Your task to perform on an android device: open a new tab in the chrome app Image 0: 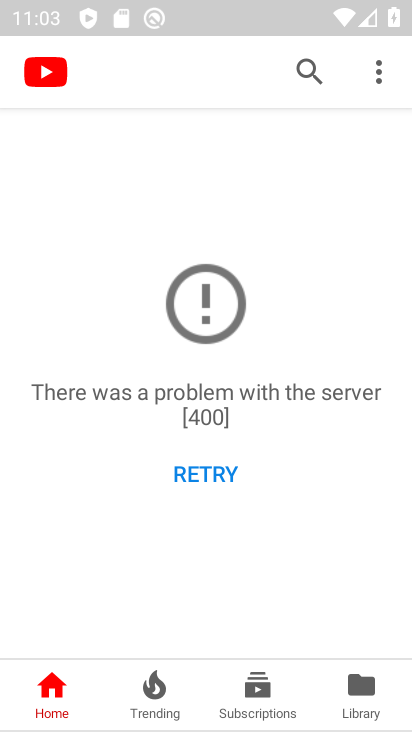
Step 0: press back button
Your task to perform on an android device: open a new tab in the chrome app Image 1: 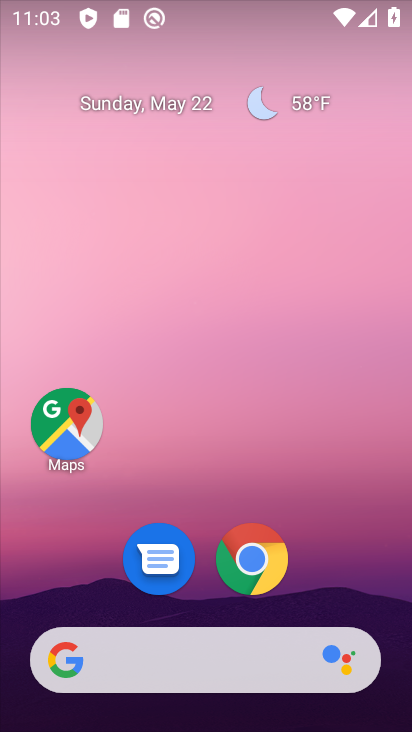
Step 1: click (269, 569)
Your task to perform on an android device: open a new tab in the chrome app Image 2: 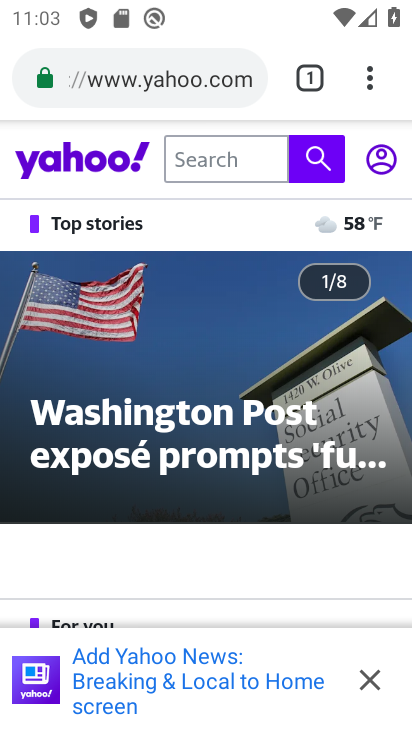
Step 2: task complete